Your task to perform on an android device: What is the speed of sound? Image 0: 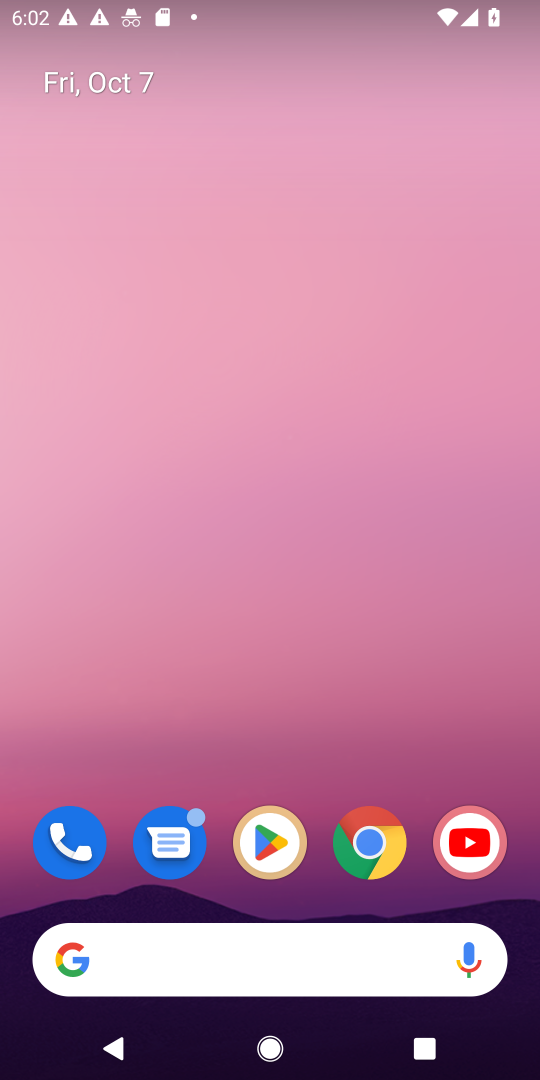
Step 0: drag from (256, 751) to (328, 116)
Your task to perform on an android device: What is the speed of sound? Image 1: 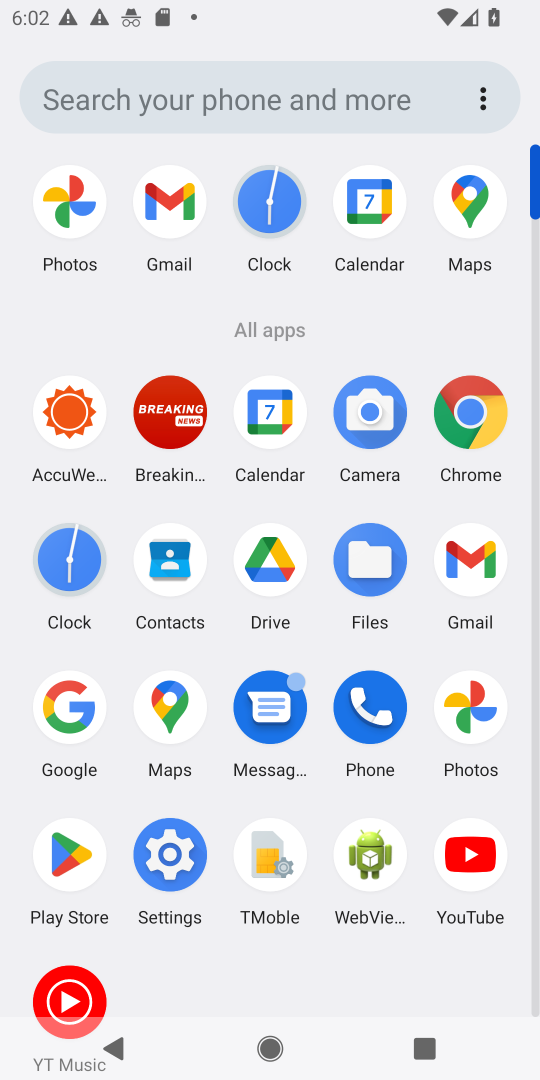
Step 1: click (90, 709)
Your task to perform on an android device: What is the speed of sound? Image 2: 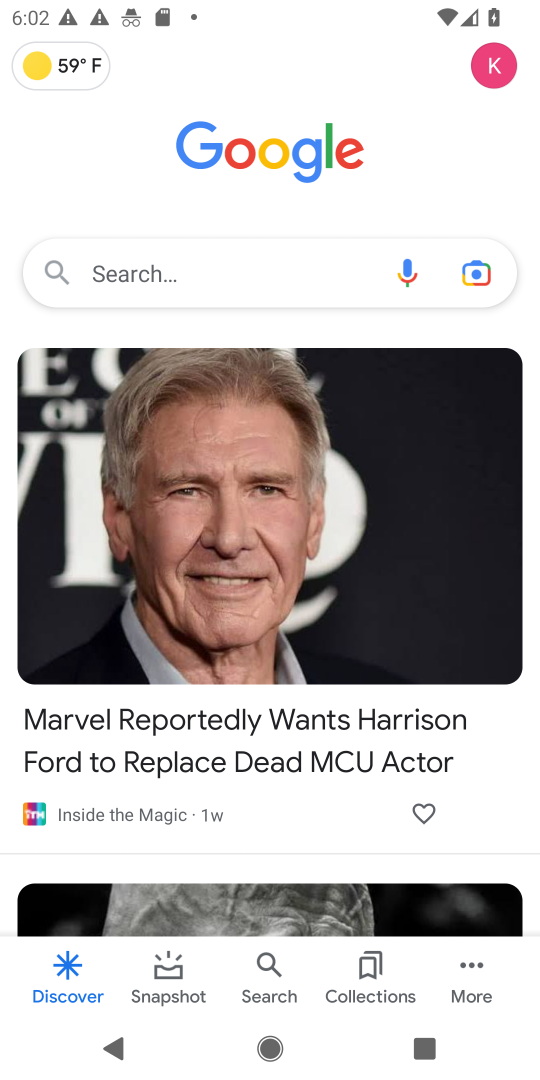
Step 2: click (199, 275)
Your task to perform on an android device: What is the speed of sound? Image 3: 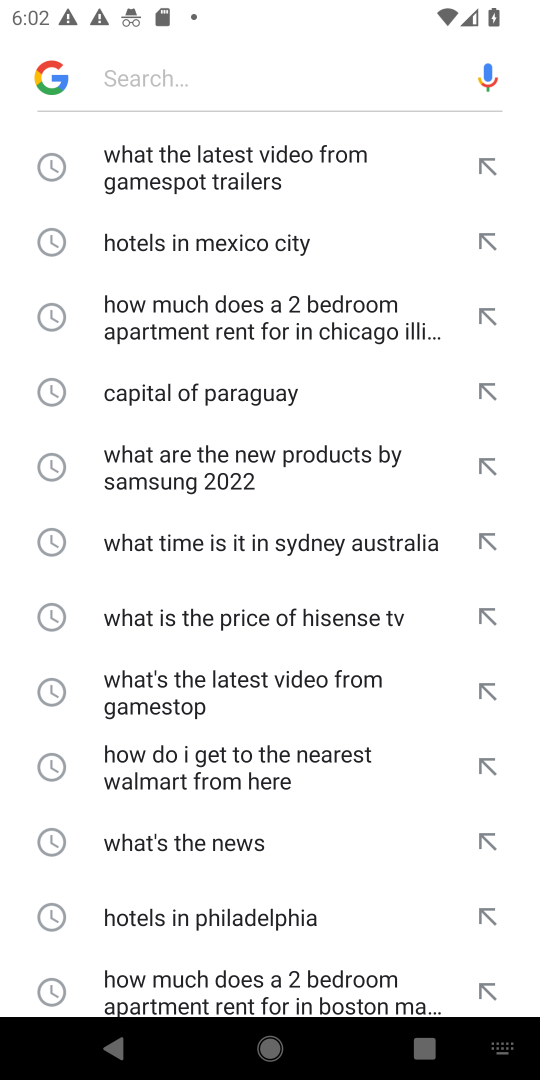
Step 3: click (180, 87)
Your task to perform on an android device: What is the speed of sound? Image 4: 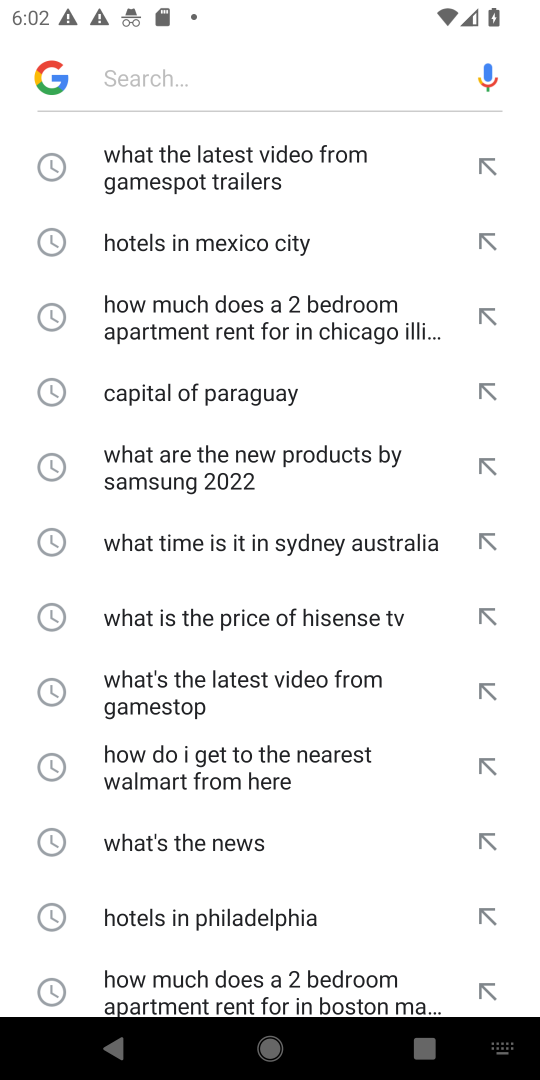
Step 4: type "What is the speed of sound"
Your task to perform on an android device: What is the speed of sound? Image 5: 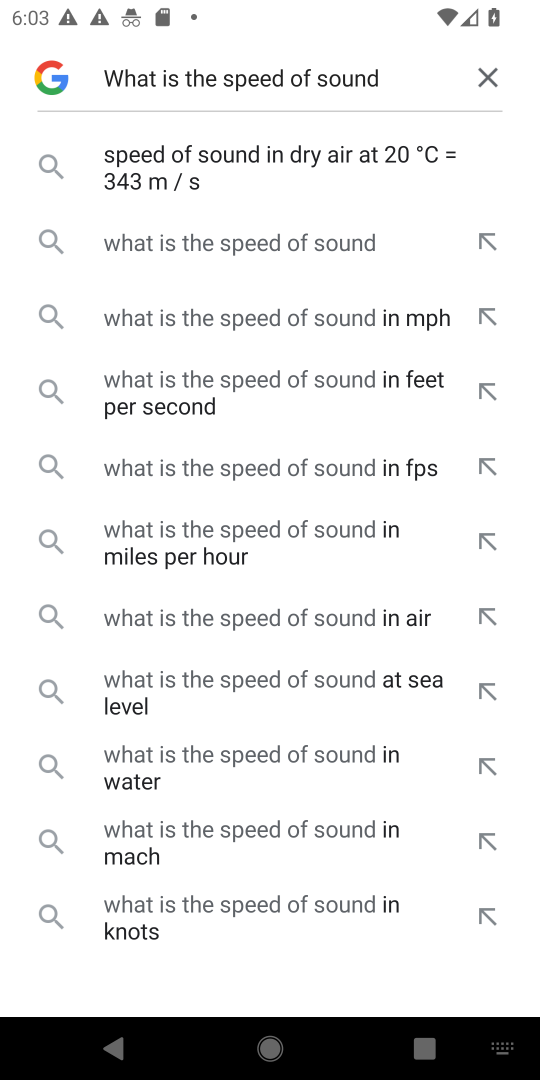
Step 5: click (226, 169)
Your task to perform on an android device: What is the speed of sound? Image 6: 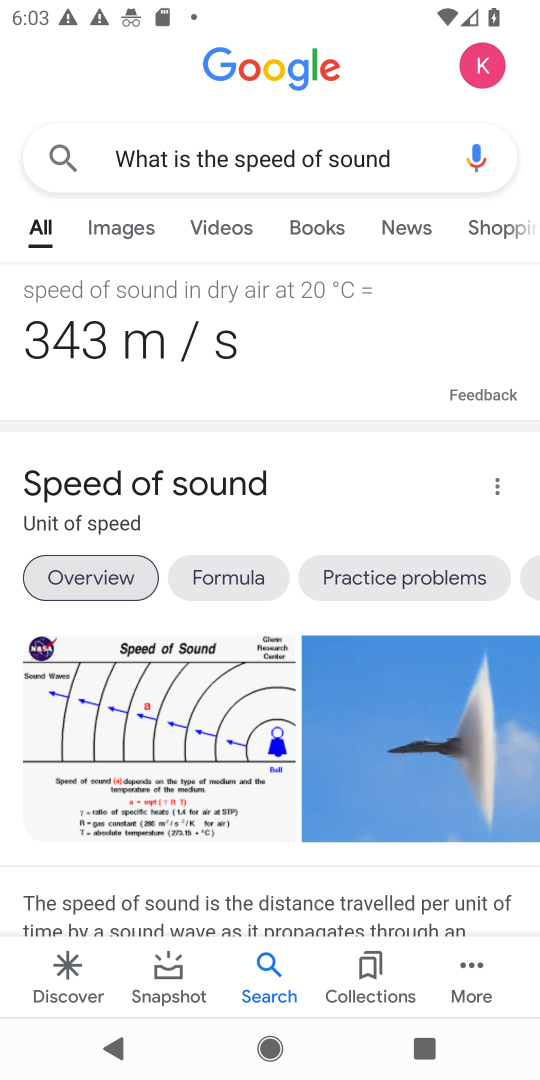
Step 6: task complete